Your task to perform on an android device: turn pop-ups on in chrome Image 0: 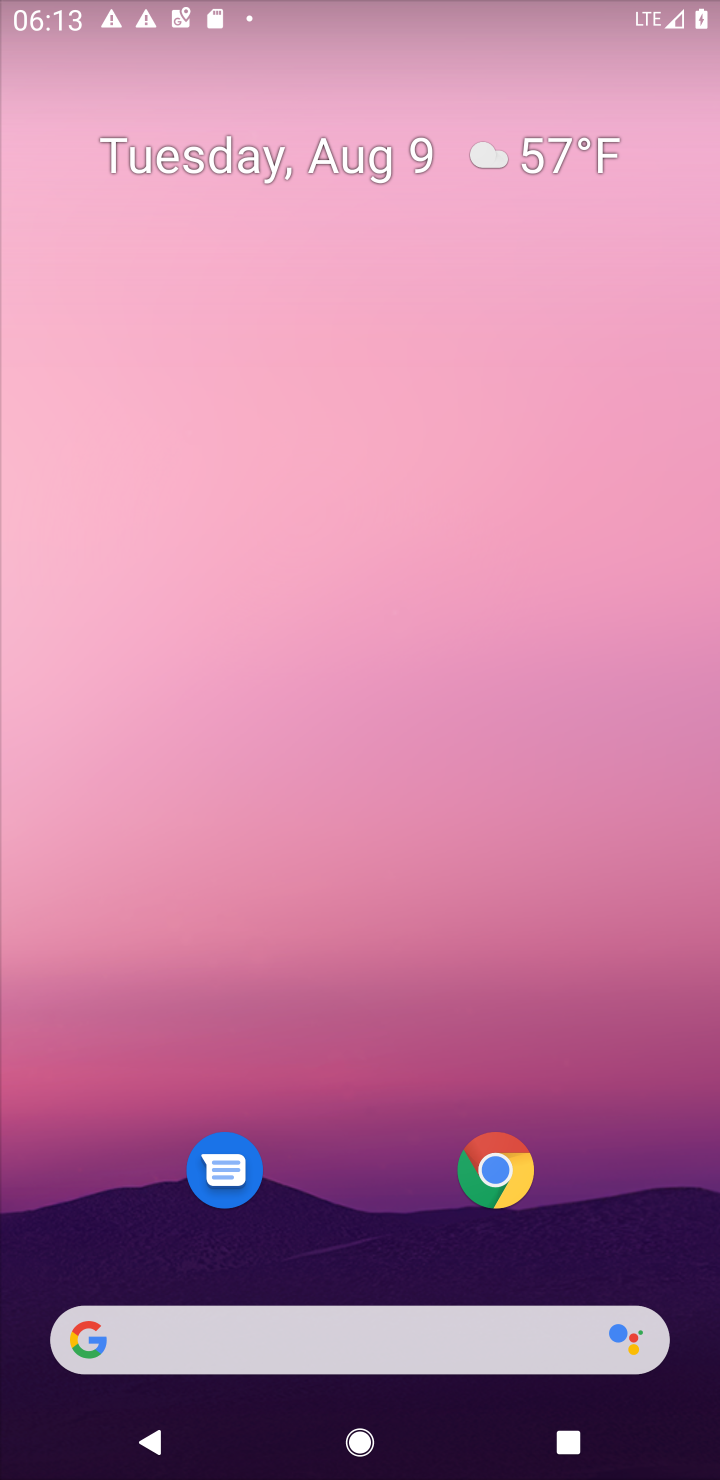
Step 0: press home button
Your task to perform on an android device: turn pop-ups on in chrome Image 1: 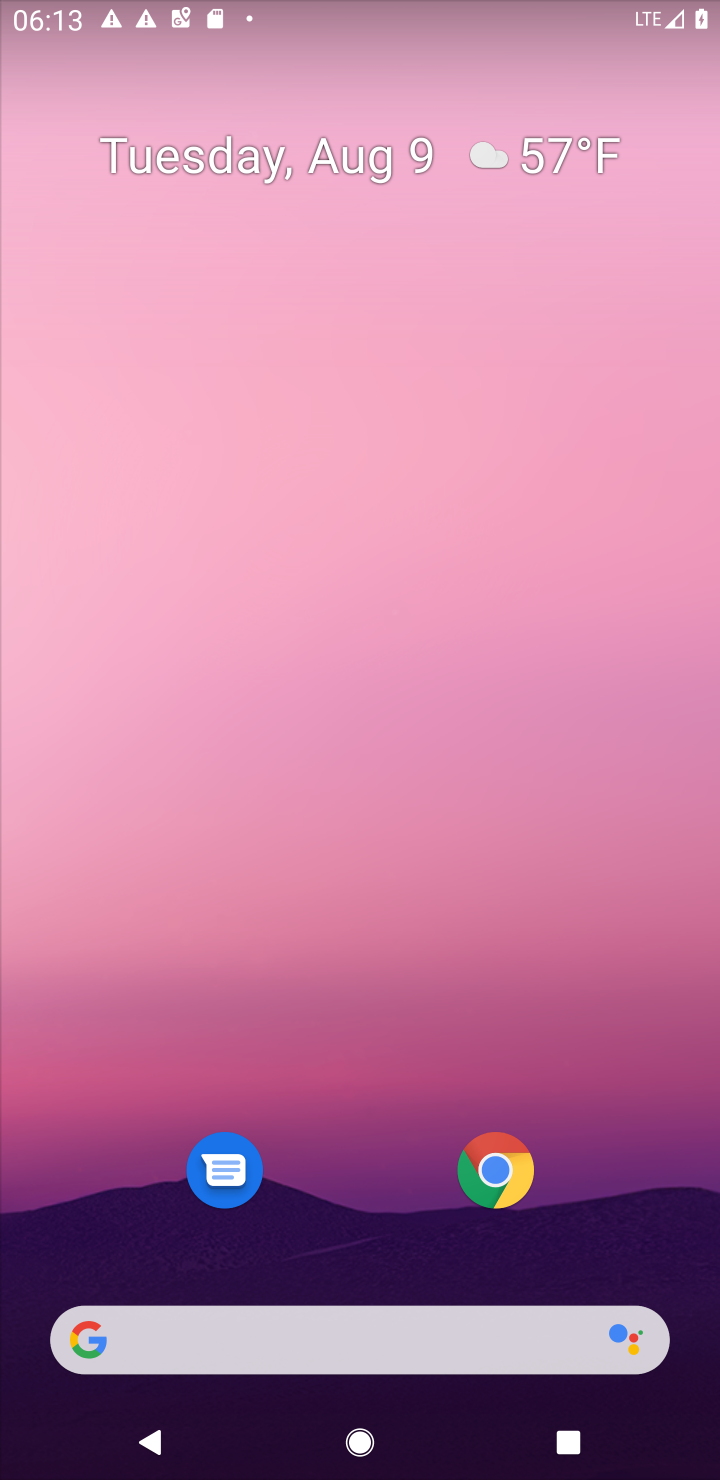
Step 1: click (523, 1179)
Your task to perform on an android device: turn pop-ups on in chrome Image 2: 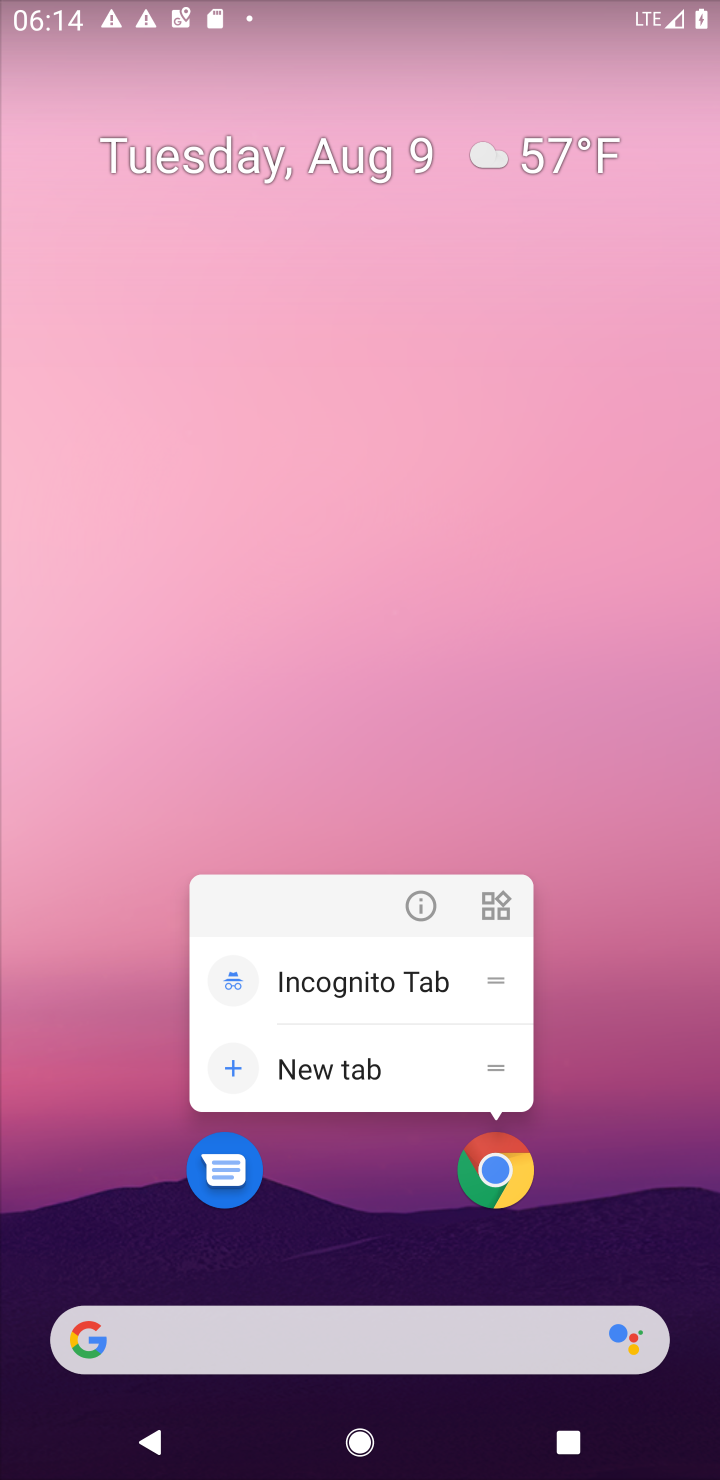
Step 2: click (513, 1200)
Your task to perform on an android device: turn pop-ups on in chrome Image 3: 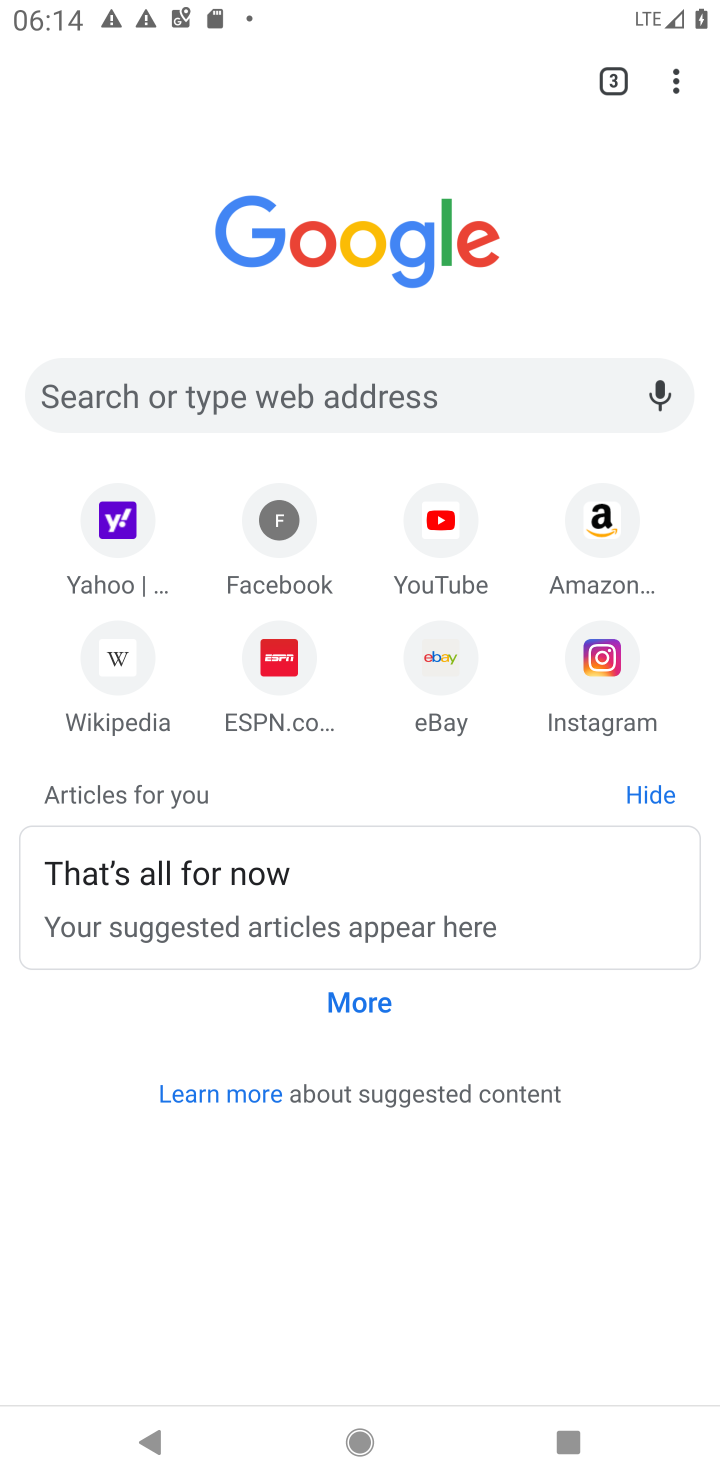
Step 3: drag from (677, 85) to (402, 681)
Your task to perform on an android device: turn pop-ups on in chrome Image 4: 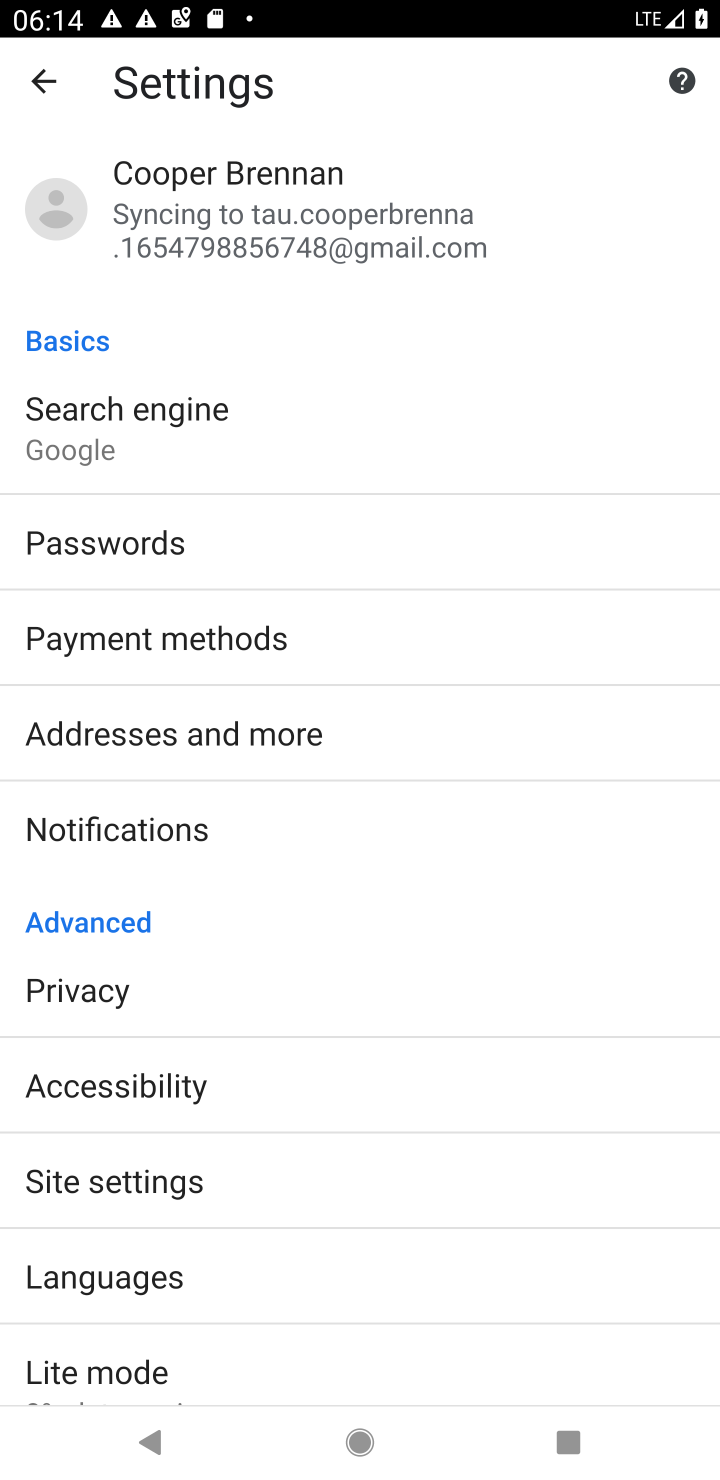
Step 4: click (112, 1190)
Your task to perform on an android device: turn pop-ups on in chrome Image 5: 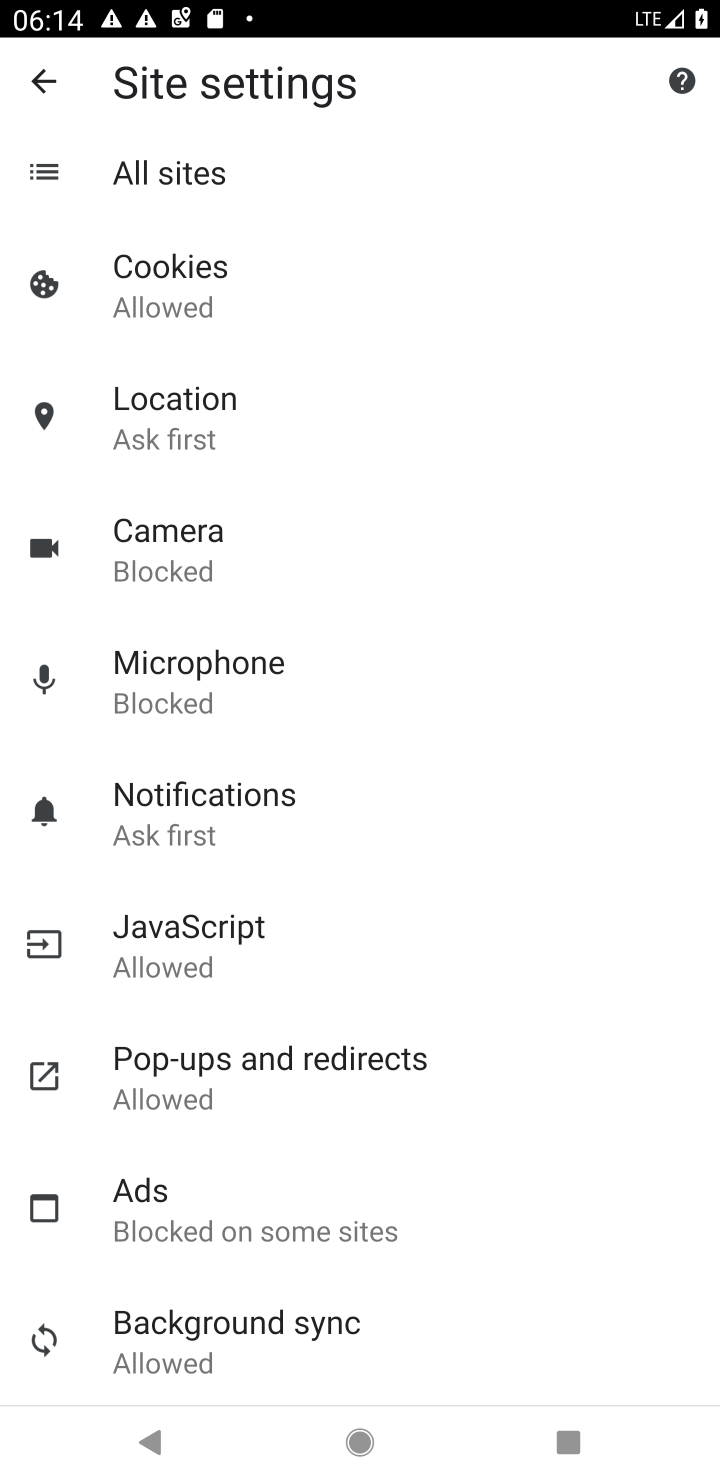
Step 5: click (241, 1075)
Your task to perform on an android device: turn pop-ups on in chrome Image 6: 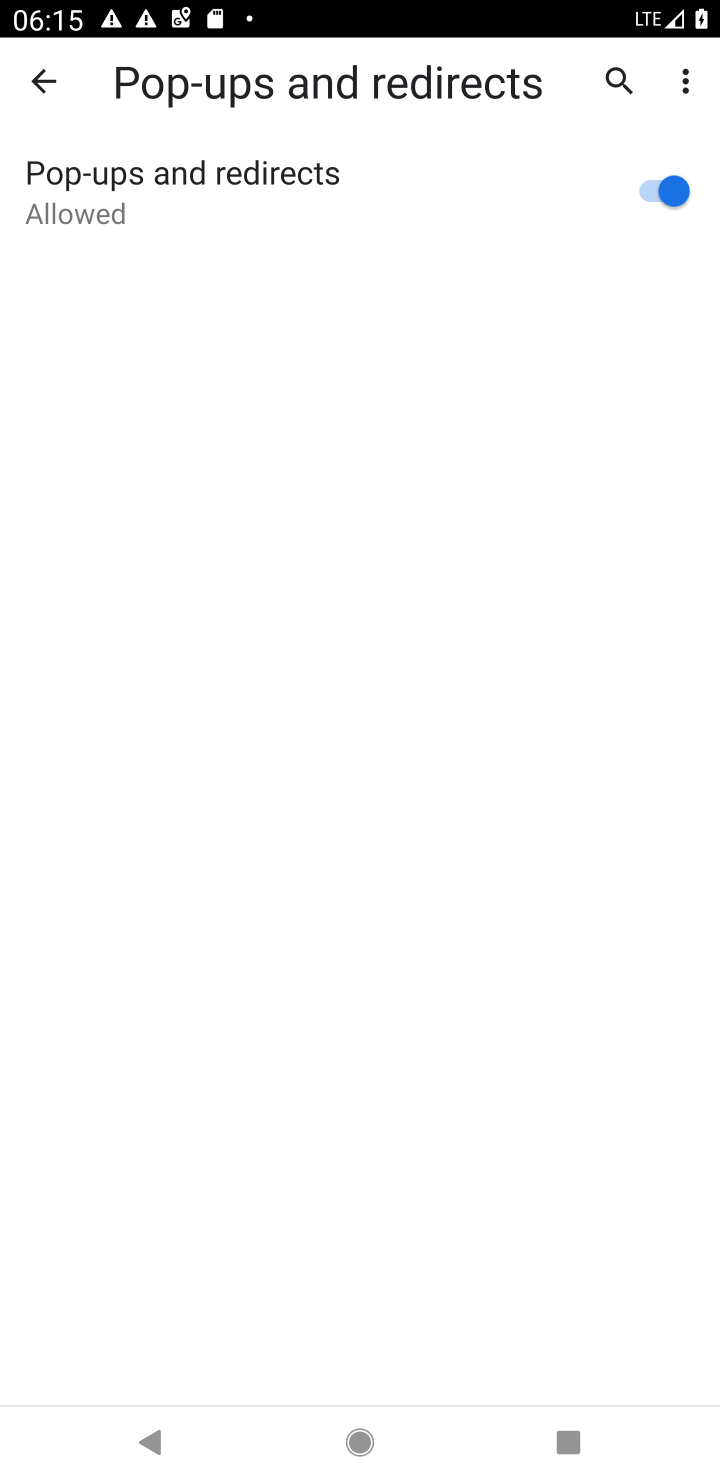
Step 6: task complete